Your task to perform on an android device: Check the news Image 0: 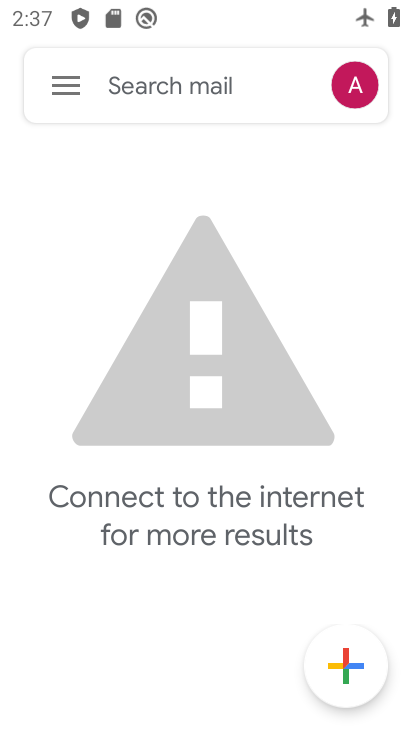
Step 0: press home button
Your task to perform on an android device: Check the news Image 1: 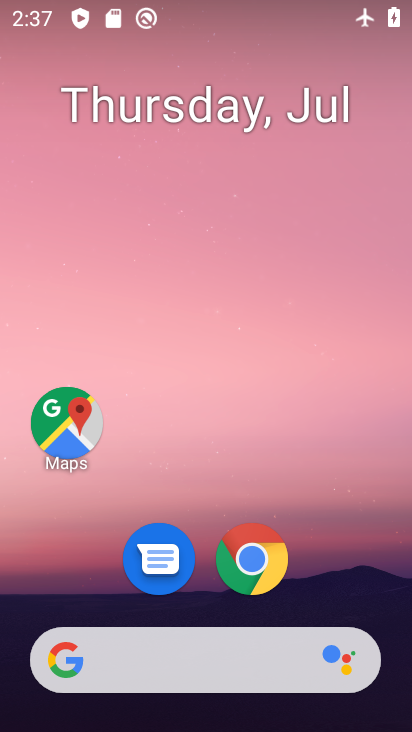
Step 1: drag from (197, 631) to (307, 199)
Your task to perform on an android device: Check the news Image 2: 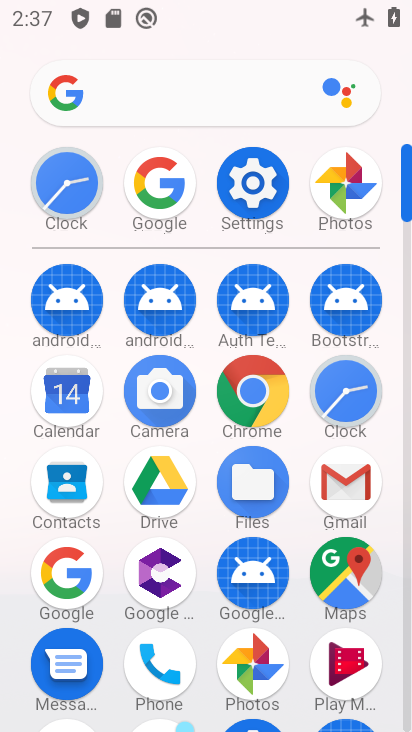
Step 2: click (77, 583)
Your task to perform on an android device: Check the news Image 3: 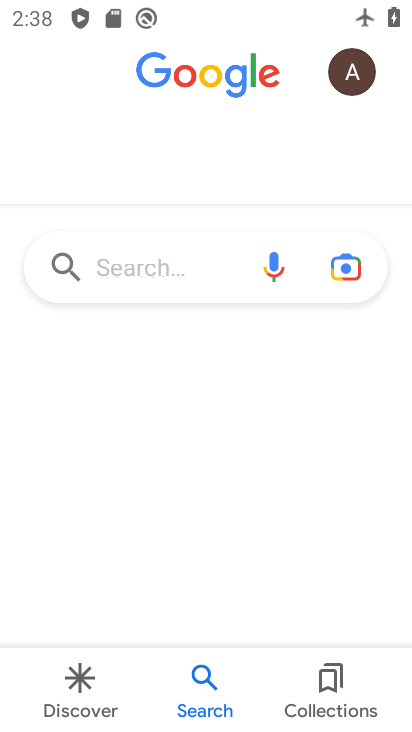
Step 3: click (126, 262)
Your task to perform on an android device: Check the news Image 4: 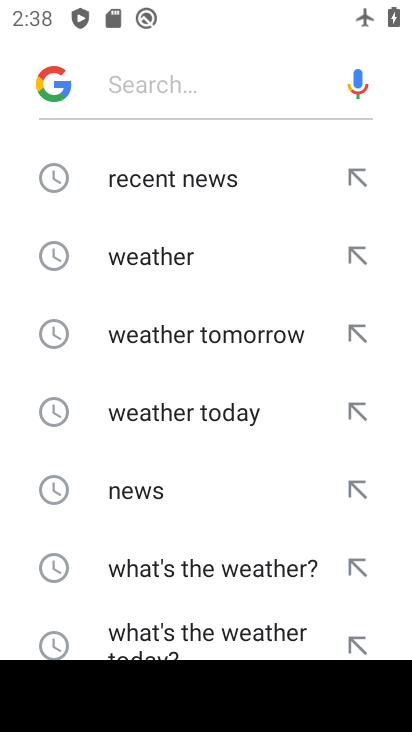
Step 4: click (190, 186)
Your task to perform on an android device: Check the news Image 5: 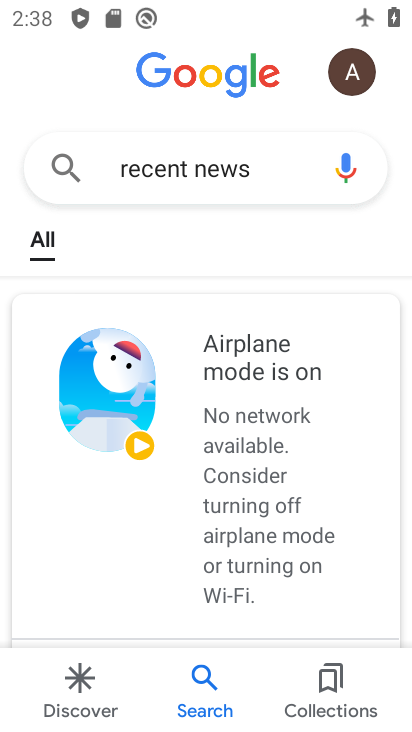
Step 5: task complete